Your task to perform on an android device: add a contact Image 0: 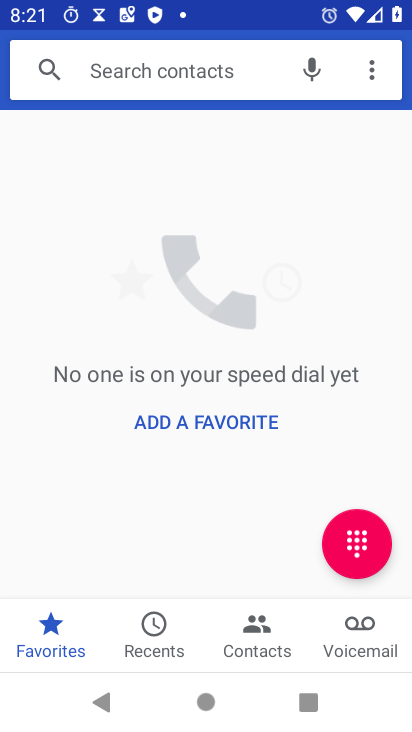
Step 0: click (249, 628)
Your task to perform on an android device: add a contact Image 1: 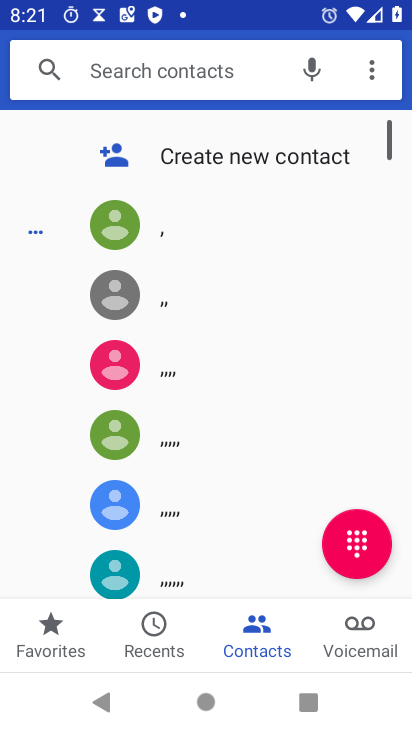
Step 1: click (182, 153)
Your task to perform on an android device: add a contact Image 2: 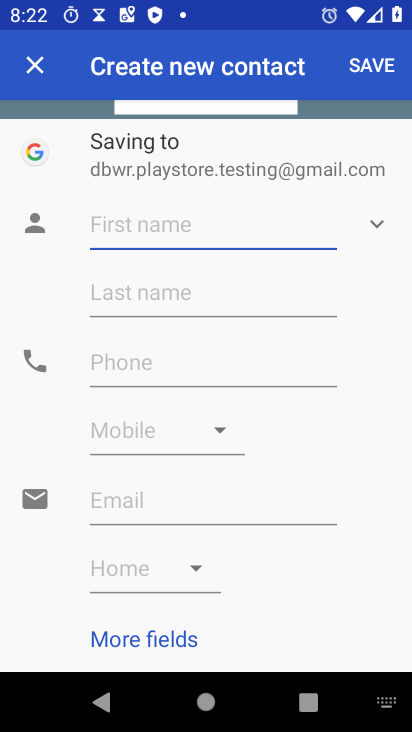
Step 2: type "nnmmj"
Your task to perform on an android device: add a contact Image 3: 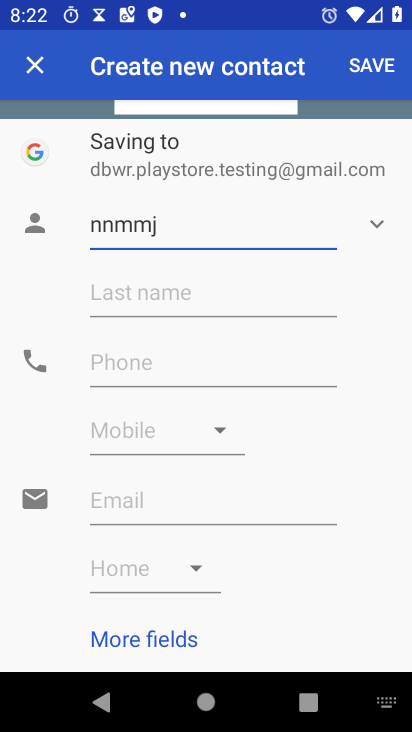
Step 3: click (134, 357)
Your task to perform on an android device: add a contact Image 4: 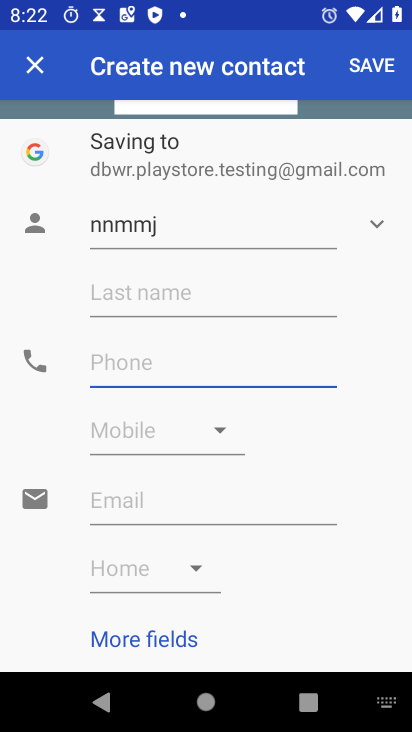
Step 4: type "00998"
Your task to perform on an android device: add a contact Image 5: 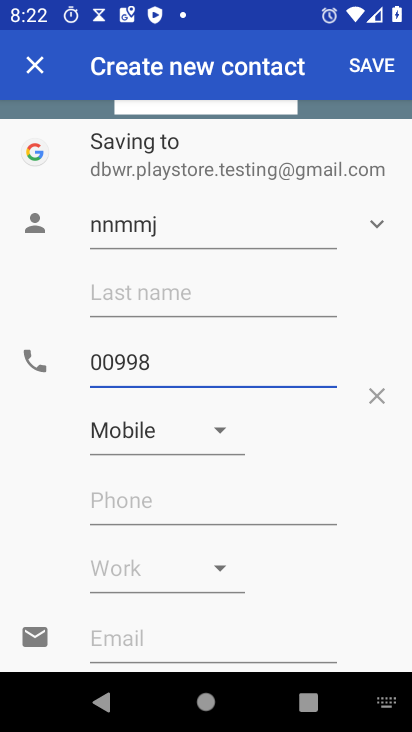
Step 5: click (360, 58)
Your task to perform on an android device: add a contact Image 6: 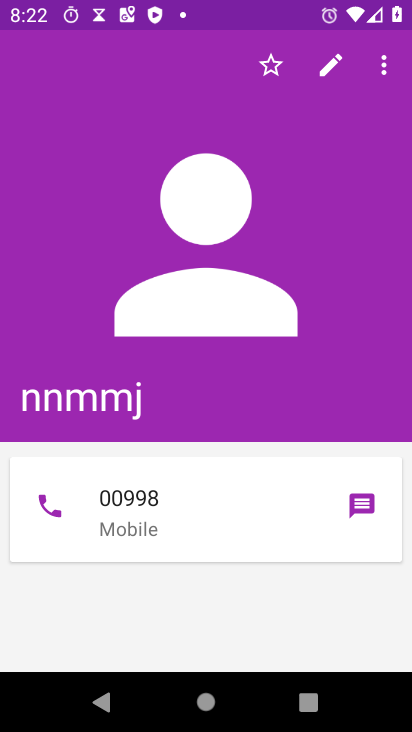
Step 6: task complete